Your task to perform on an android device: turn notification dots off Image 0: 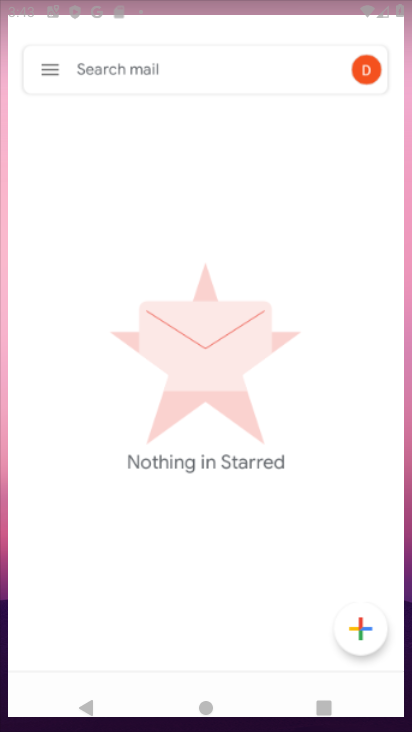
Step 0: drag from (308, 681) to (176, 50)
Your task to perform on an android device: turn notification dots off Image 1: 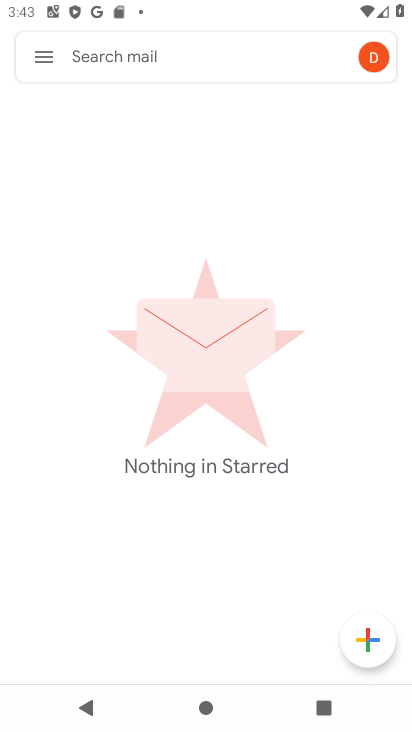
Step 1: press home button
Your task to perform on an android device: turn notification dots off Image 2: 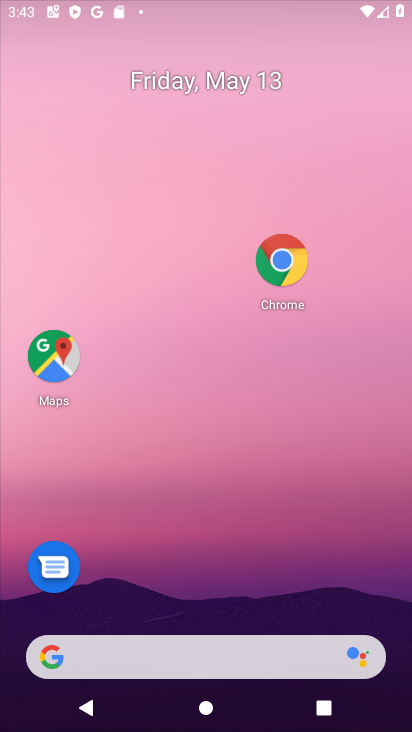
Step 2: drag from (251, 572) to (213, 177)
Your task to perform on an android device: turn notification dots off Image 3: 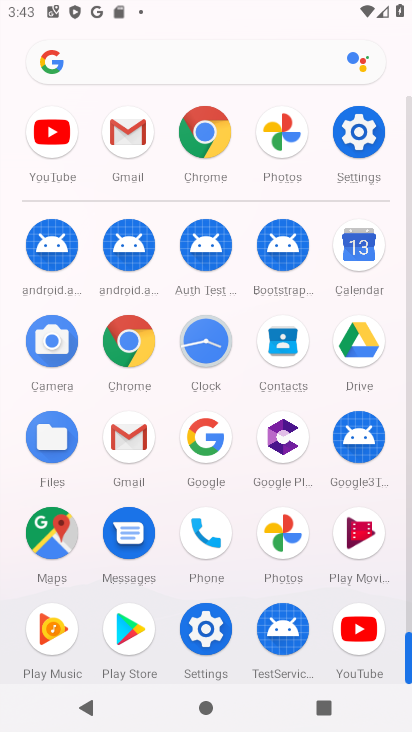
Step 3: click (57, 520)
Your task to perform on an android device: turn notification dots off Image 4: 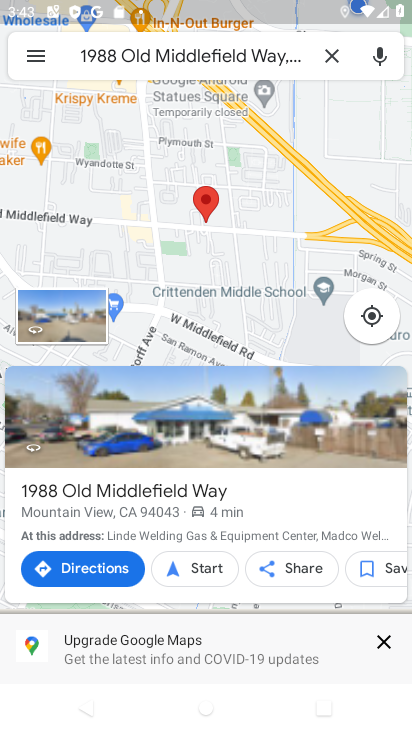
Step 4: click (117, 56)
Your task to perform on an android device: turn notification dots off Image 5: 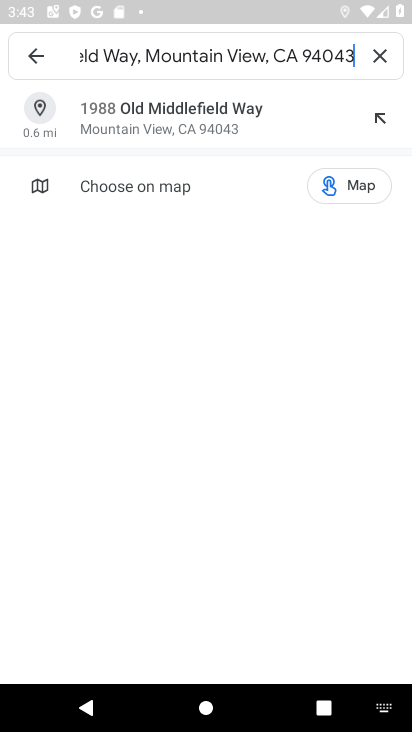
Step 5: click (387, 58)
Your task to perform on an android device: turn notification dots off Image 6: 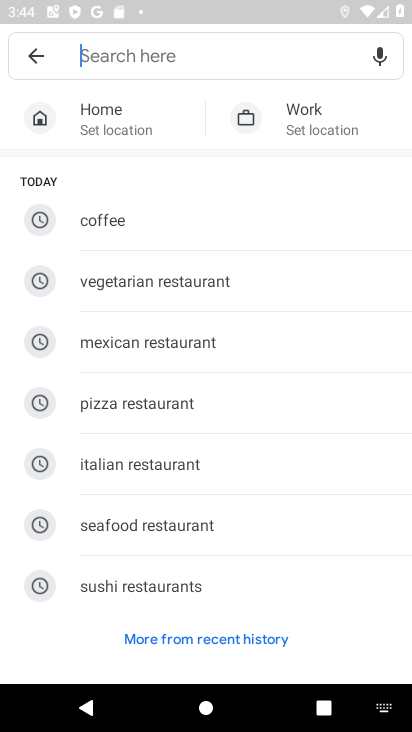
Step 6: press back button
Your task to perform on an android device: turn notification dots off Image 7: 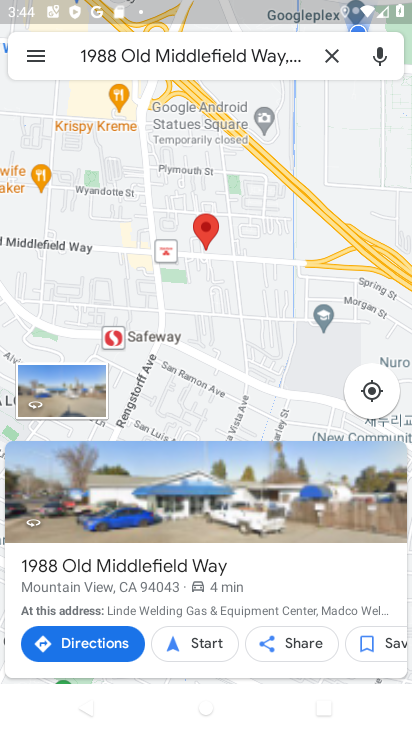
Step 7: press home button
Your task to perform on an android device: turn notification dots off Image 8: 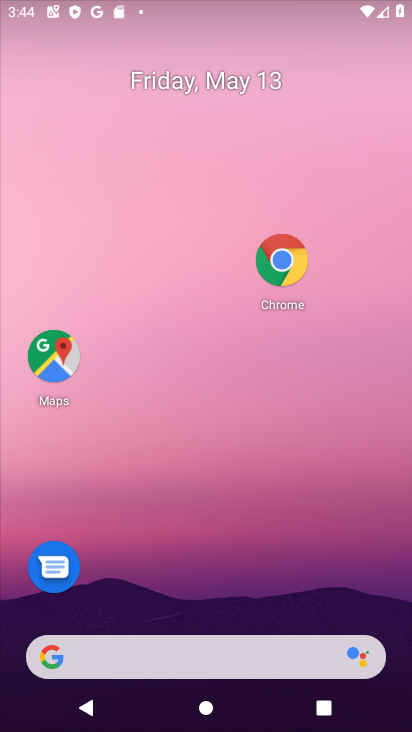
Step 8: drag from (228, 541) to (186, 104)
Your task to perform on an android device: turn notification dots off Image 9: 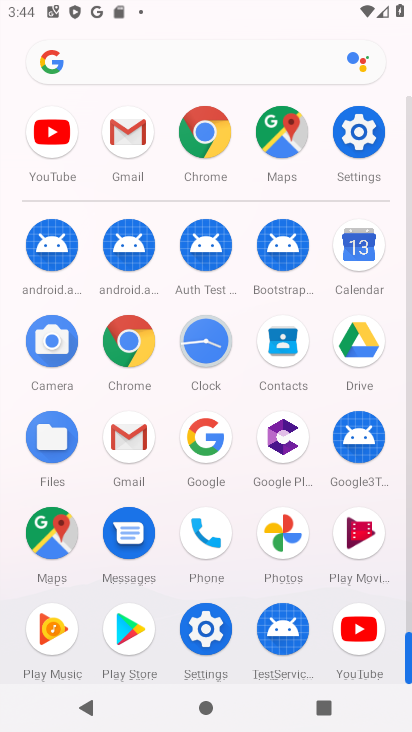
Step 9: click (347, 142)
Your task to perform on an android device: turn notification dots off Image 10: 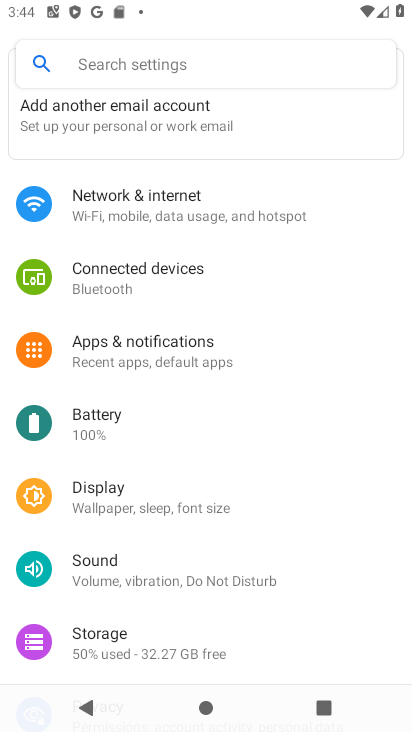
Step 10: click (138, 356)
Your task to perform on an android device: turn notification dots off Image 11: 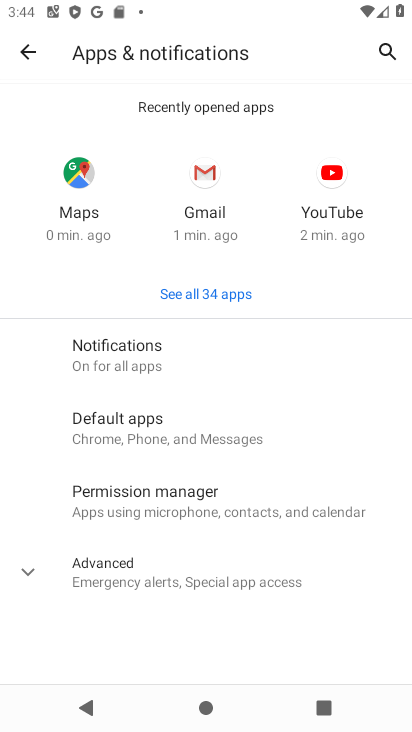
Step 11: click (125, 373)
Your task to perform on an android device: turn notification dots off Image 12: 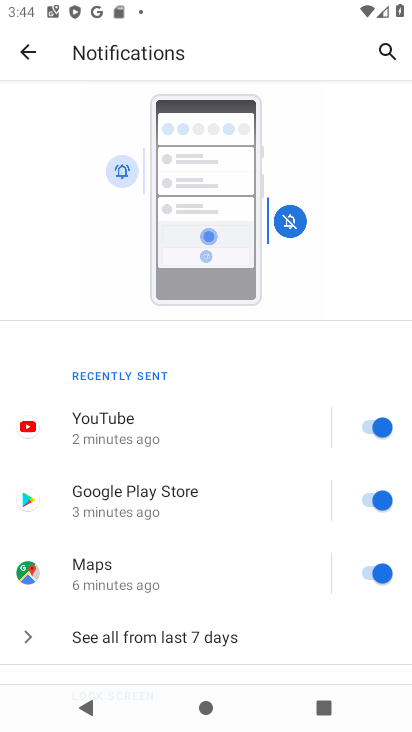
Step 12: drag from (176, 518) to (141, 213)
Your task to perform on an android device: turn notification dots off Image 13: 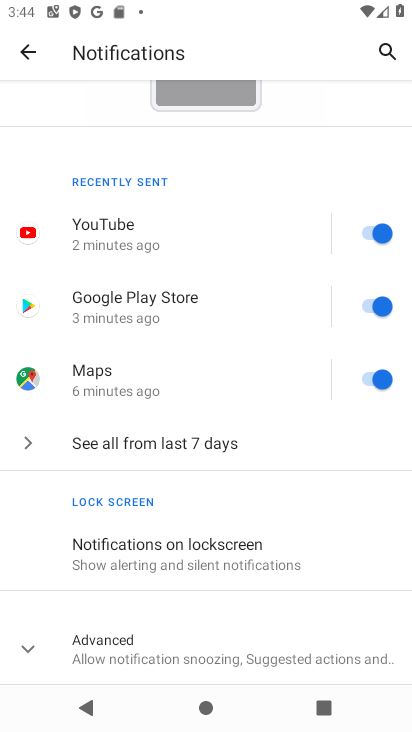
Step 13: click (125, 628)
Your task to perform on an android device: turn notification dots off Image 14: 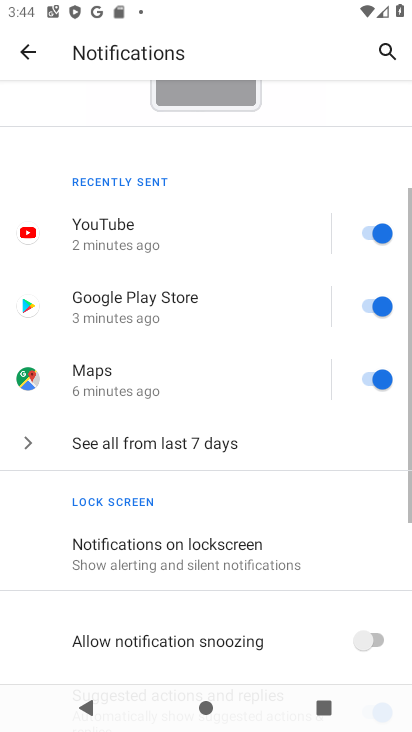
Step 14: task complete